Your task to perform on an android device: Go to location settings Image 0: 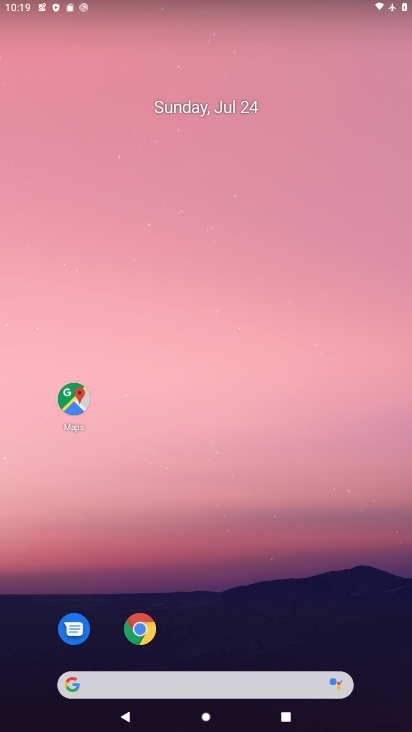
Step 0: drag from (257, 646) to (257, 40)
Your task to perform on an android device: Go to location settings Image 1: 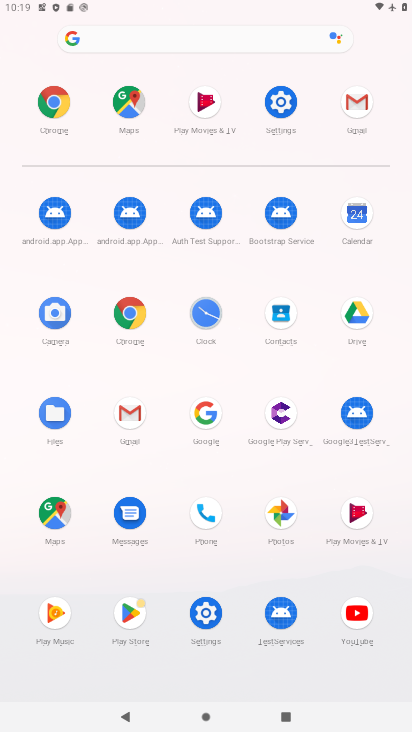
Step 1: click (284, 104)
Your task to perform on an android device: Go to location settings Image 2: 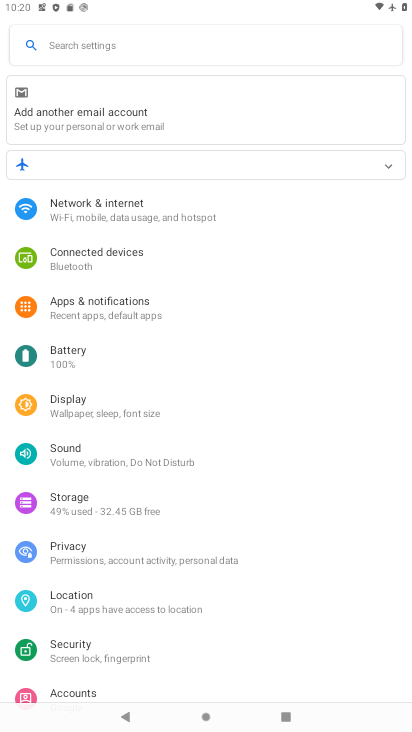
Step 2: click (62, 591)
Your task to perform on an android device: Go to location settings Image 3: 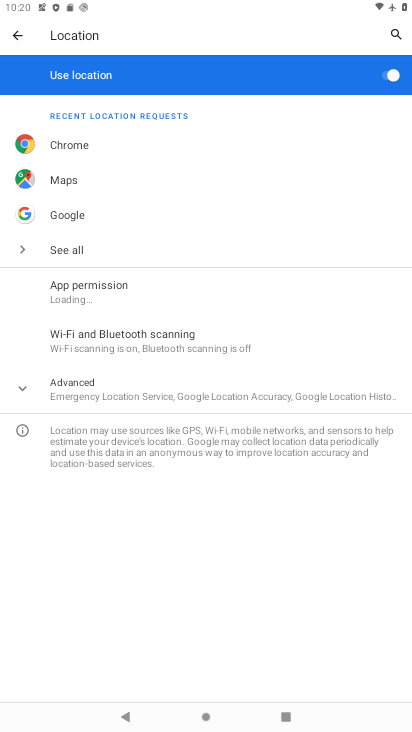
Step 3: task complete